Your task to perform on an android device: Is it going to rain today? Image 0: 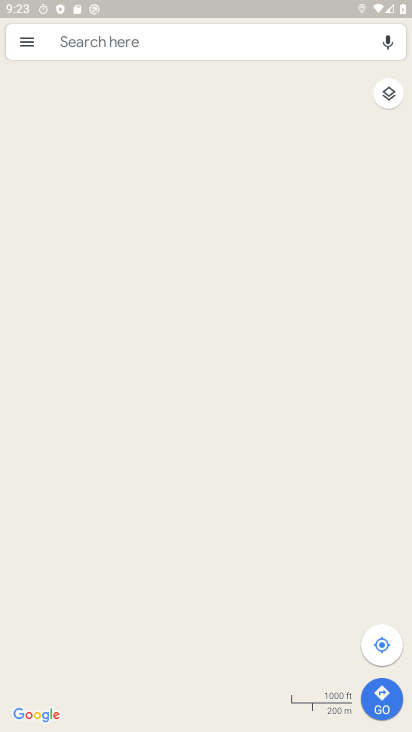
Step 0: press back button
Your task to perform on an android device: Is it going to rain today? Image 1: 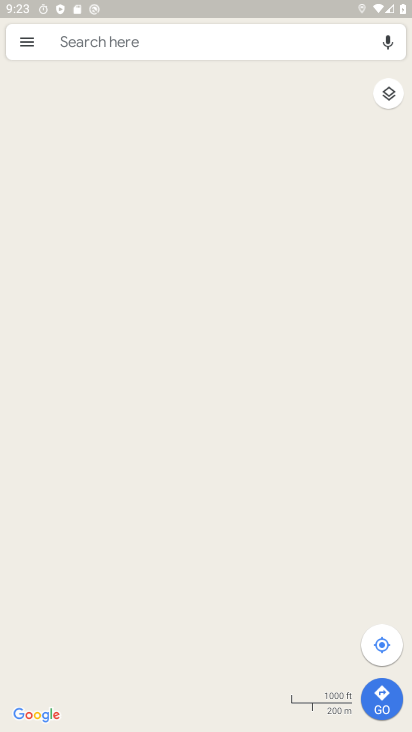
Step 1: click (184, 59)
Your task to perform on an android device: Is it going to rain today? Image 2: 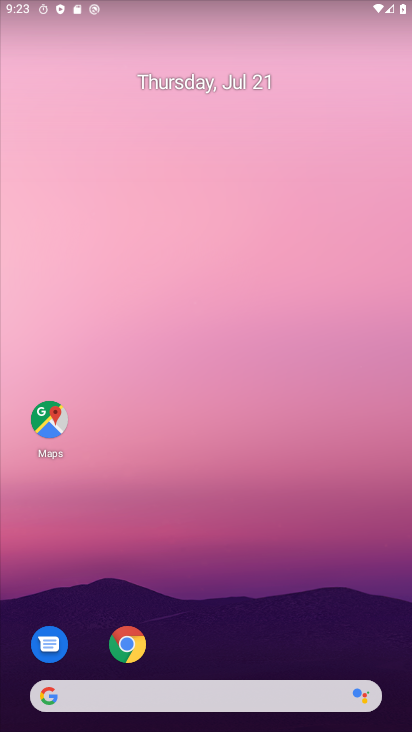
Step 2: drag from (255, 580) to (216, 56)
Your task to perform on an android device: Is it going to rain today? Image 3: 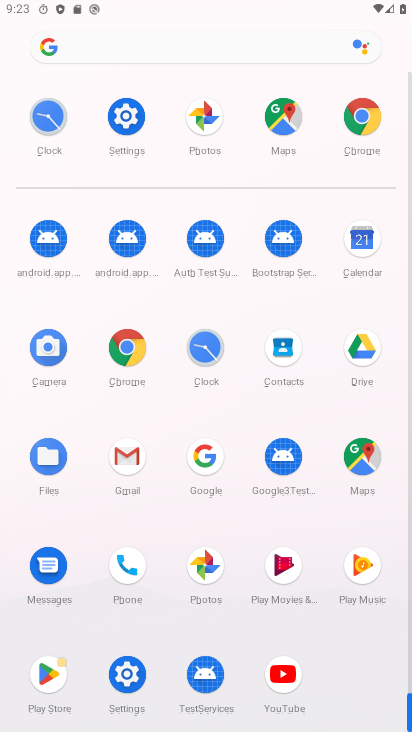
Step 3: click (358, 124)
Your task to perform on an android device: Is it going to rain today? Image 4: 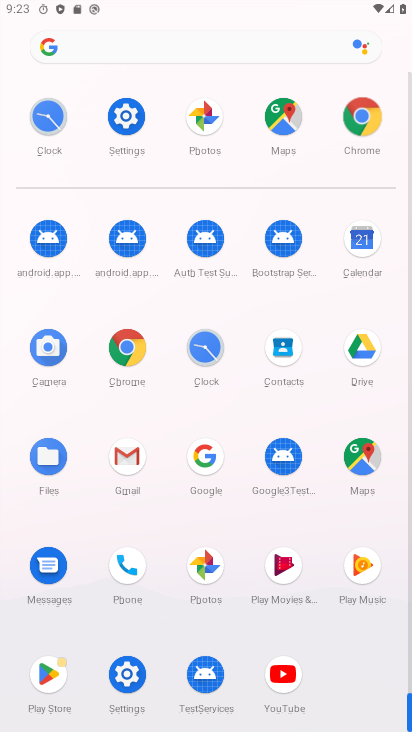
Step 4: click (362, 118)
Your task to perform on an android device: Is it going to rain today? Image 5: 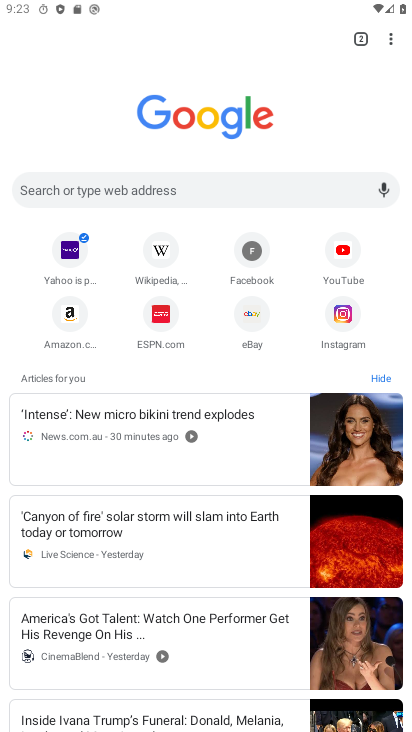
Step 5: click (88, 180)
Your task to perform on an android device: Is it going to rain today? Image 6: 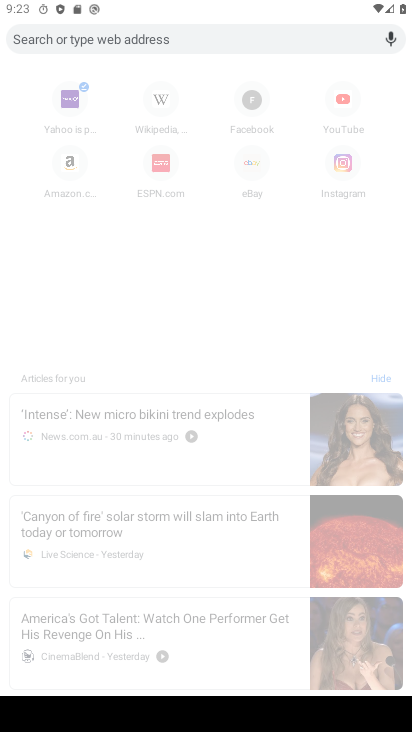
Step 6: type "is it to going rain today?"
Your task to perform on an android device: Is it going to rain today? Image 7: 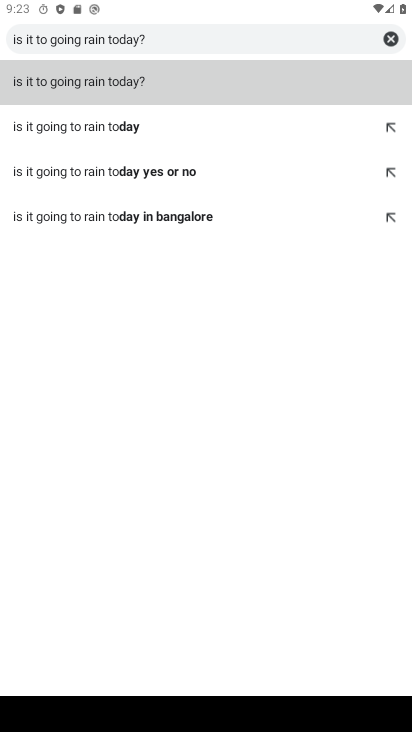
Step 7: click (65, 91)
Your task to perform on an android device: Is it going to rain today? Image 8: 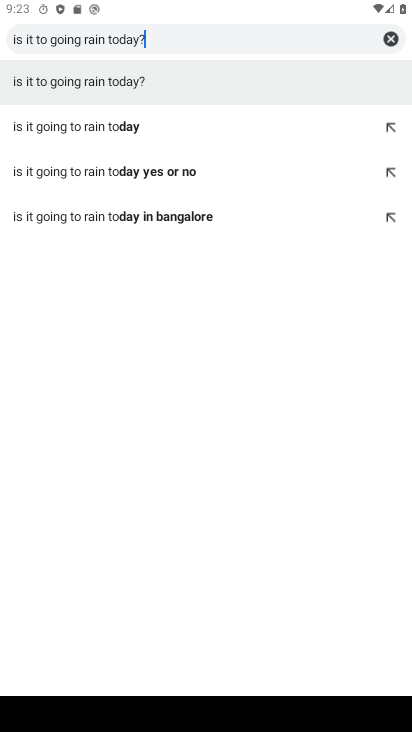
Step 8: click (73, 84)
Your task to perform on an android device: Is it going to rain today? Image 9: 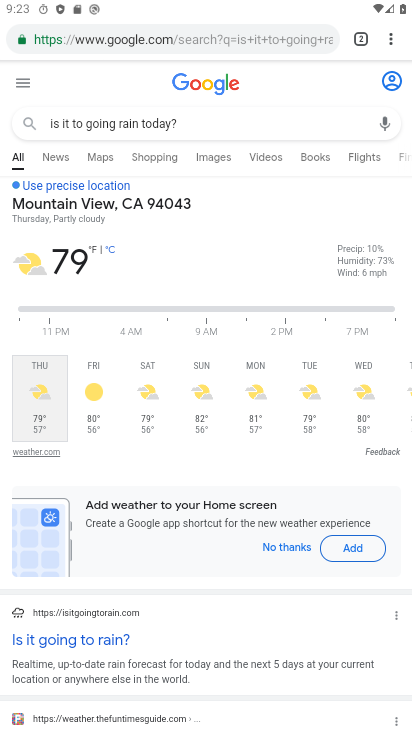
Step 9: task complete